Your task to perform on an android device: delete browsing data in the chrome app Image 0: 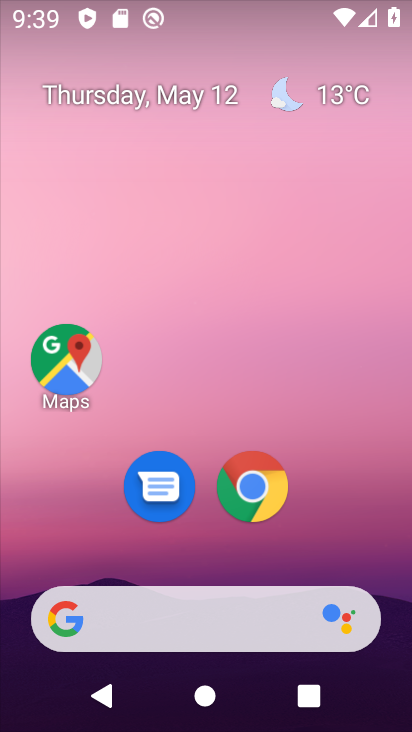
Step 0: click (263, 497)
Your task to perform on an android device: delete browsing data in the chrome app Image 1: 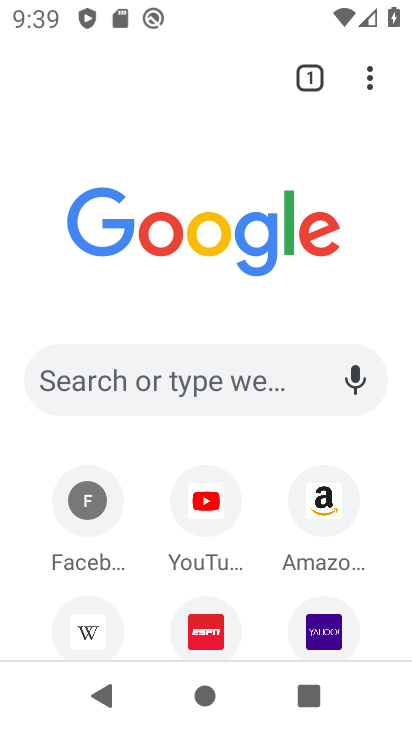
Step 1: click (371, 85)
Your task to perform on an android device: delete browsing data in the chrome app Image 2: 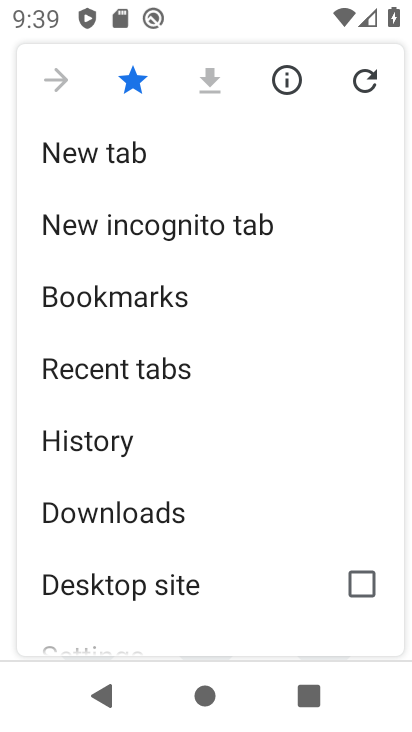
Step 2: click (144, 447)
Your task to perform on an android device: delete browsing data in the chrome app Image 3: 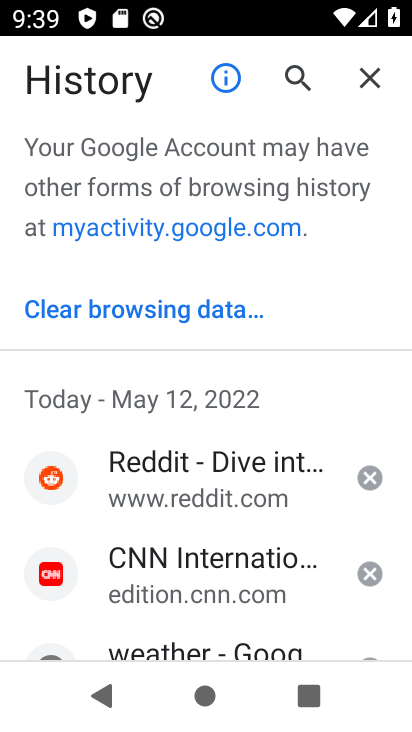
Step 3: click (163, 312)
Your task to perform on an android device: delete browsing data in the chrome app Image 4: 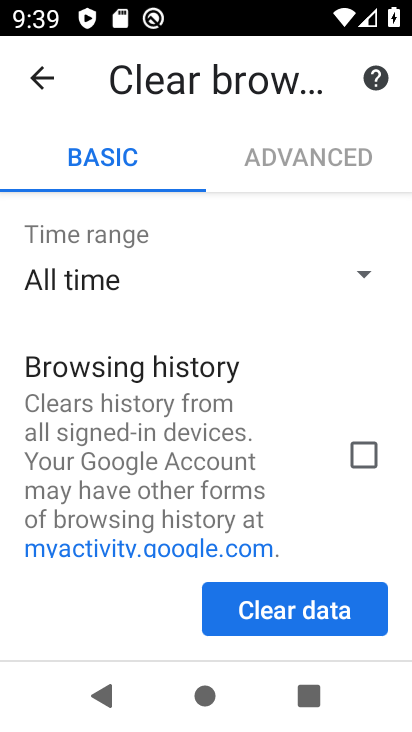
Step 4: click (369, 454)
Your task to perform on an android device: delete browsing data in the chrome app Image 5: 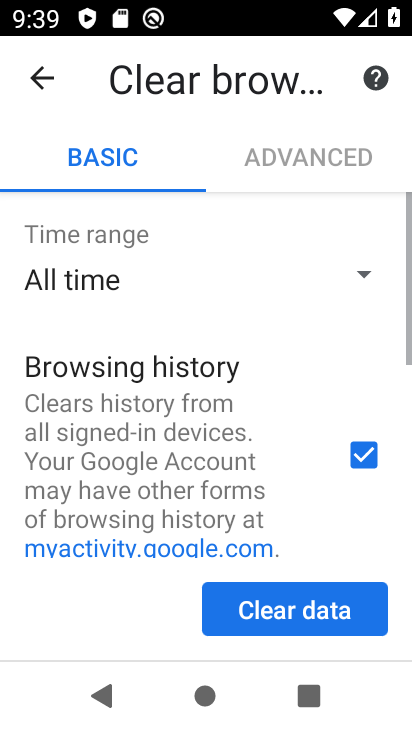
Step 5: drag from (329, 481) to (261, 212)
Your task to perform on an android device: delete browsing data in the chrome app Image 6: 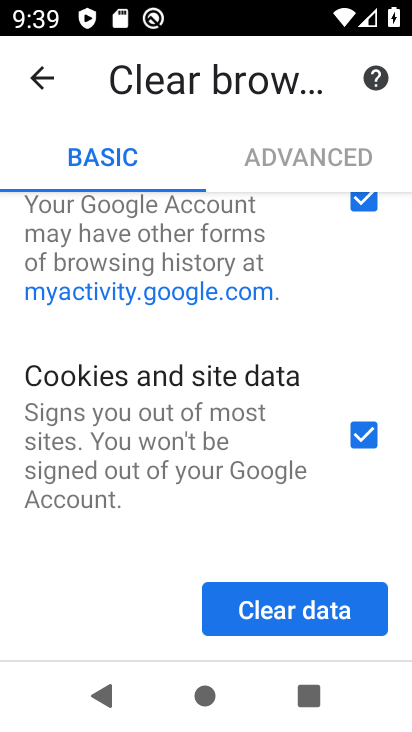
Step 6: click (369, 426)
Your task to perform on an android device: delete browsing data in the chrome app Image 7: 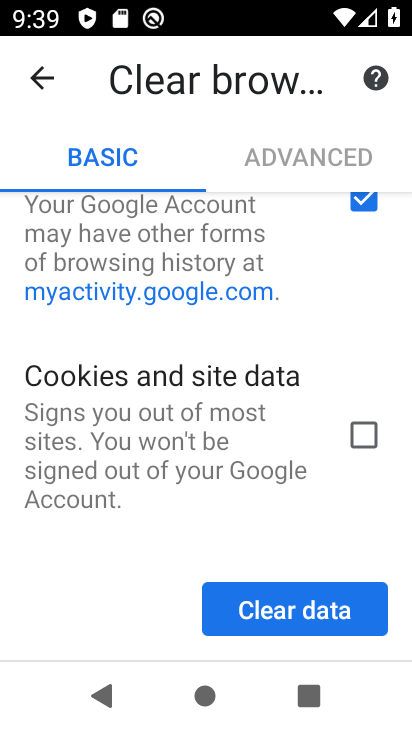
Step 7: drag from (311, 544) to (269, 329)
Your task to perform on an android device: delete browsing data in the chrome app Image 8: 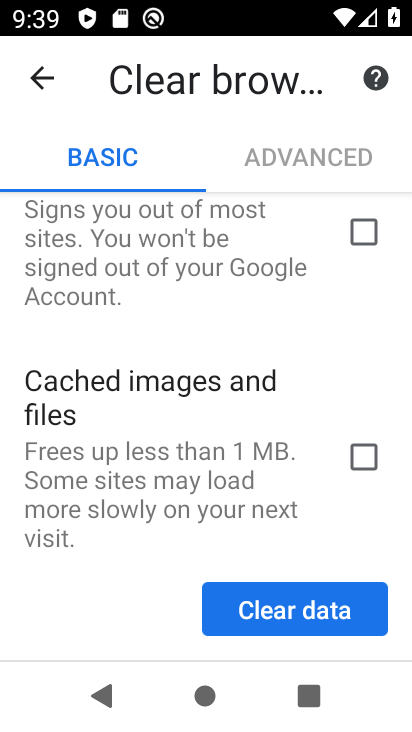
Step 8: click (315, 610)
Your task to perform on an android device: delete browsing data in the chrome app Image 9: 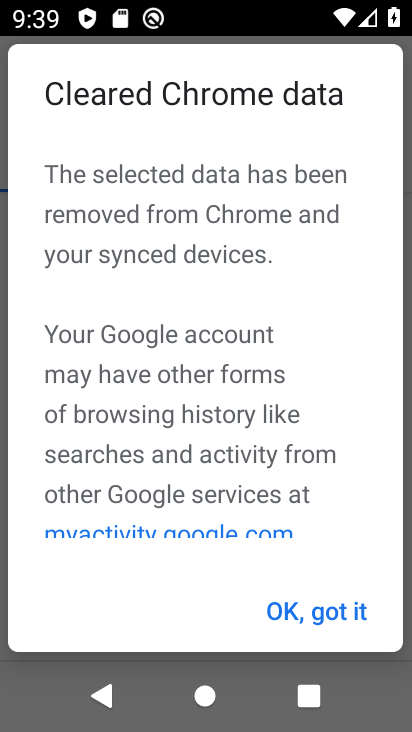
Step 9: click (308, 616)
Your task to perform on an android device: delete browsing data in the chrome app Image 10: 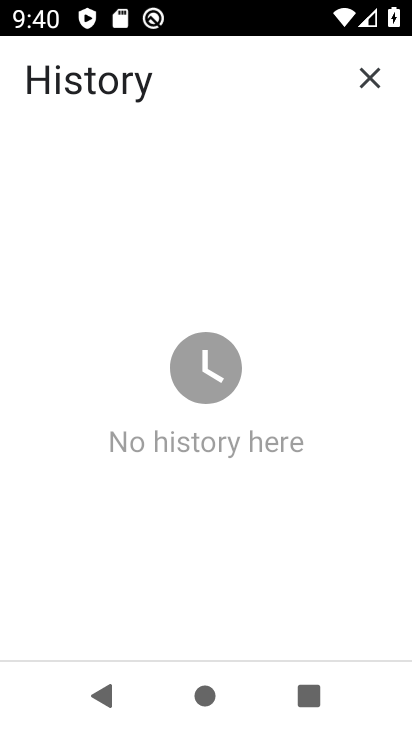
Step 10: task complete